Your task to perform on an android device: turn on sleep mode Image 0: 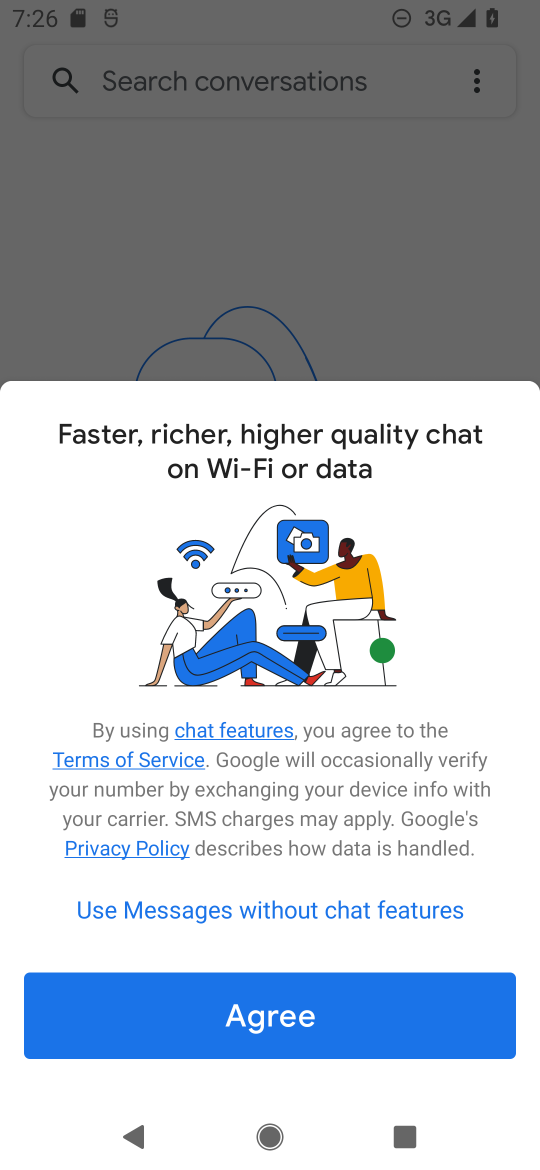
Step 0: press home button
Your task to perform on an android device: turn on sleep mode Image 1: 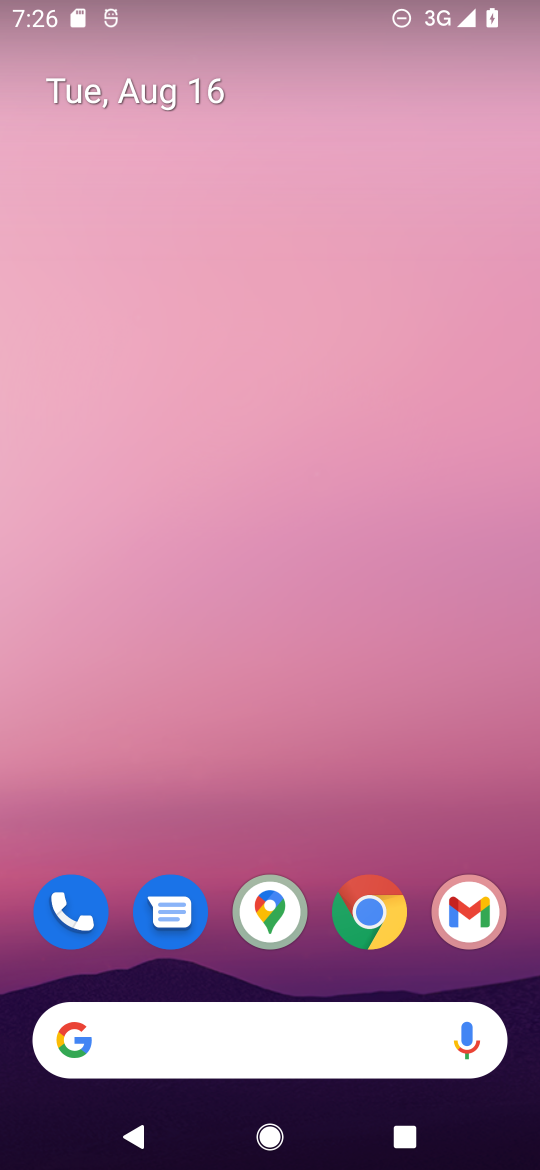
Step 1: drag from (423, 973) to (420, 93)
Your task to perform on an android device: turn on sleep mode Image 2: 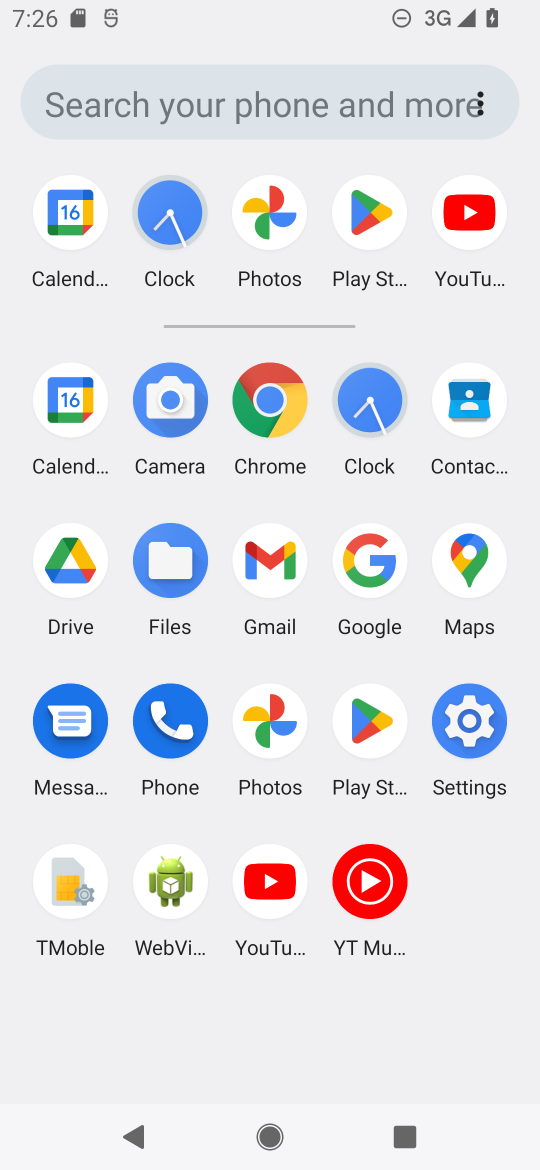
Step 2: click (474, 723)
Your task to perform on an android device: turn on sleep mode Image 3: 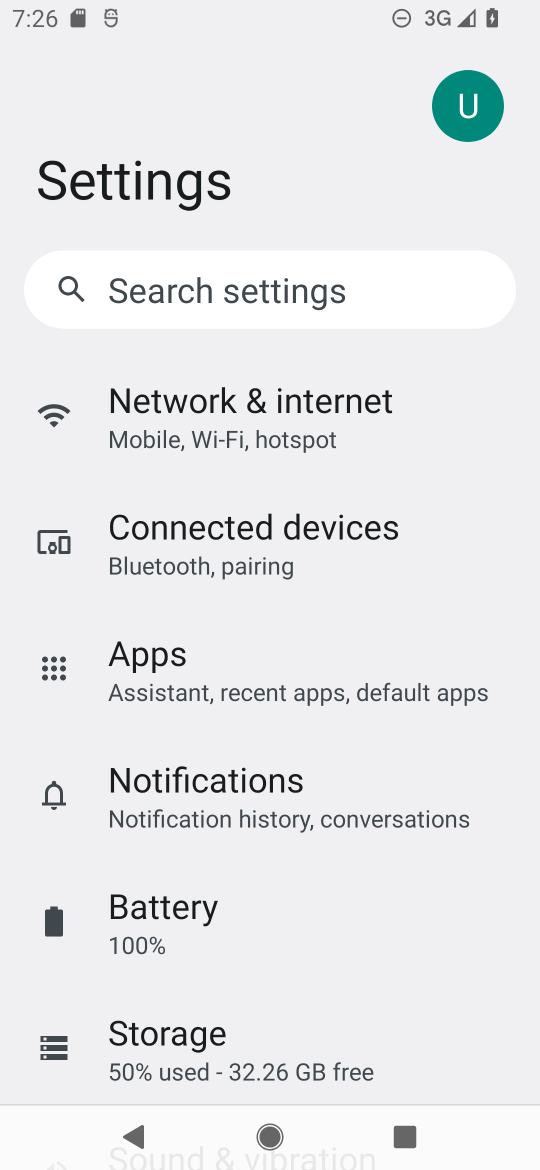
Step 3: drag from (334, 925) to (353, 608)
Your task to perform on an android device: turn on sleep mode Image 4: 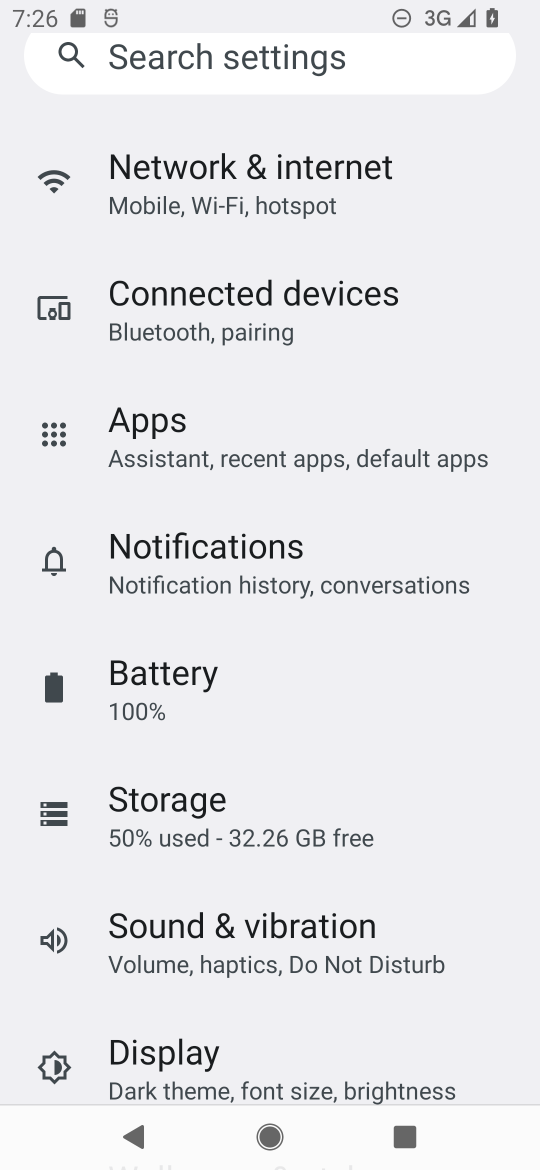
Step 4: drag from (293, 965) to (270, 471)
Your task to perform on an android device: turn on sleep mode Image 5: 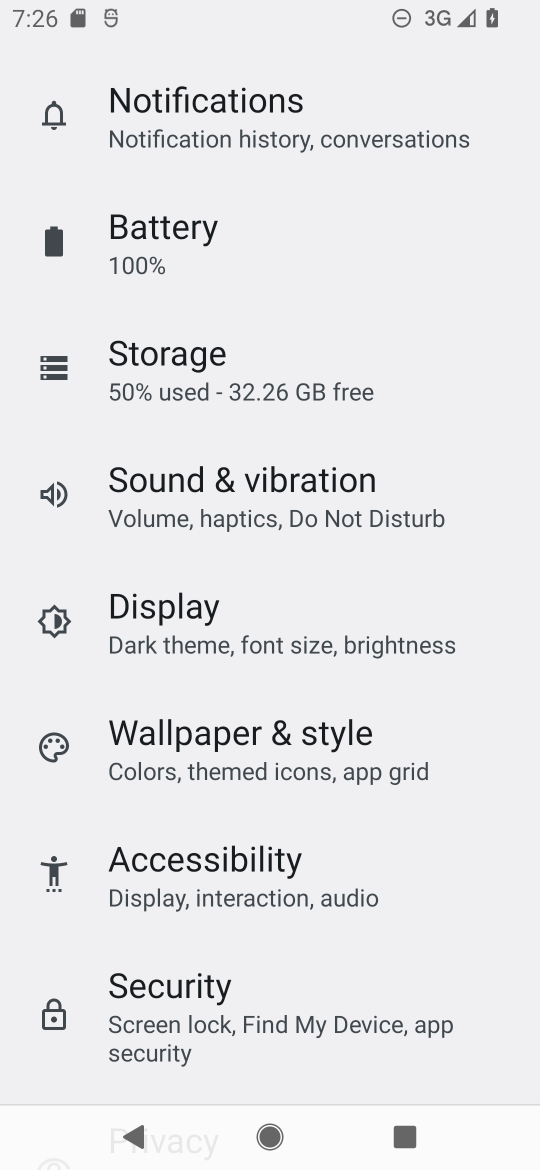
Step 5: click (181, 628)
Your task to perform on an android device: turn on sleep mode Image 6: 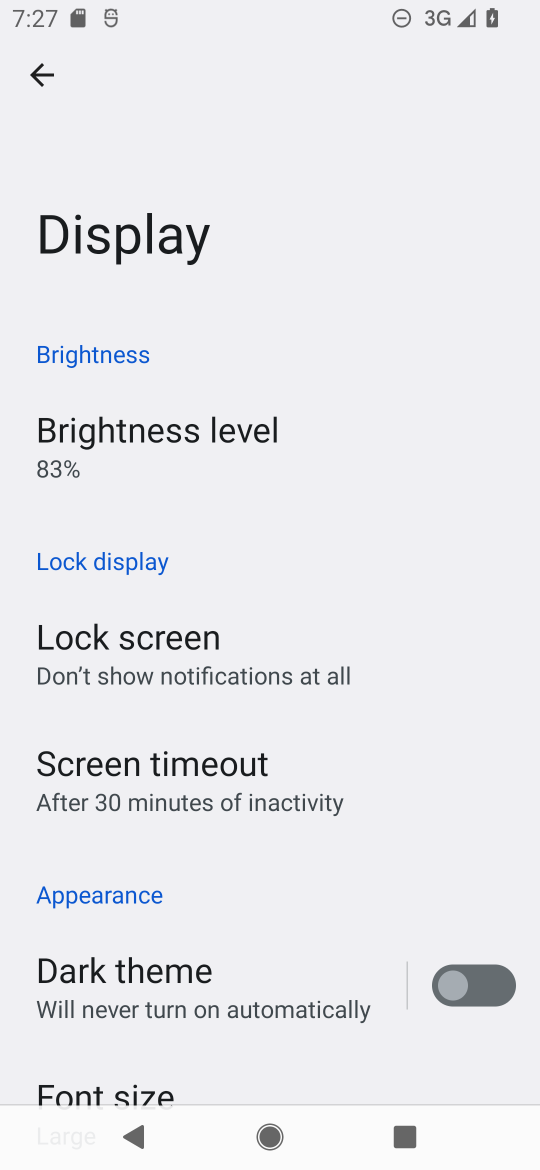
Step 6: task complete